Your task to perform on an android device: Open network settings Image 0: 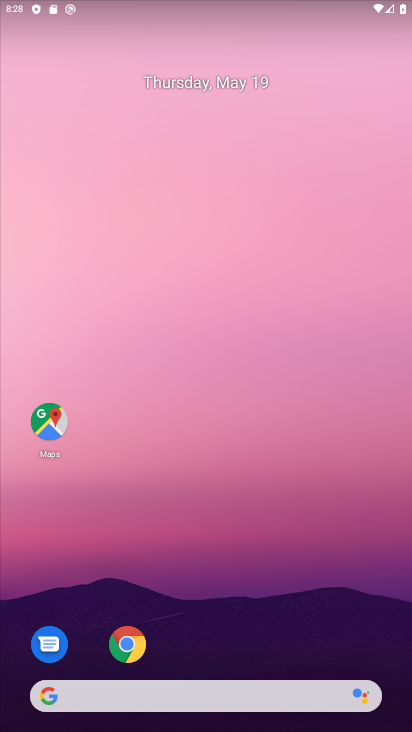
Step 0: drag from (279, 642) to (230, 60)
Your task to perform on an android device: Open network settings Image 1: 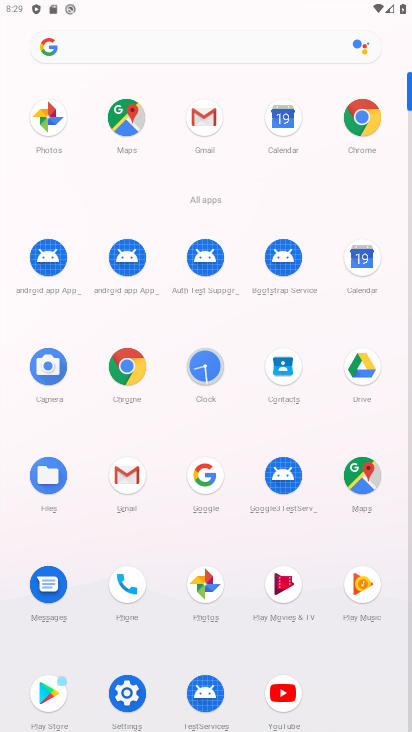
Step 1: click (130, 675)
Your task to perform on an android device: Open network settings Image 2: 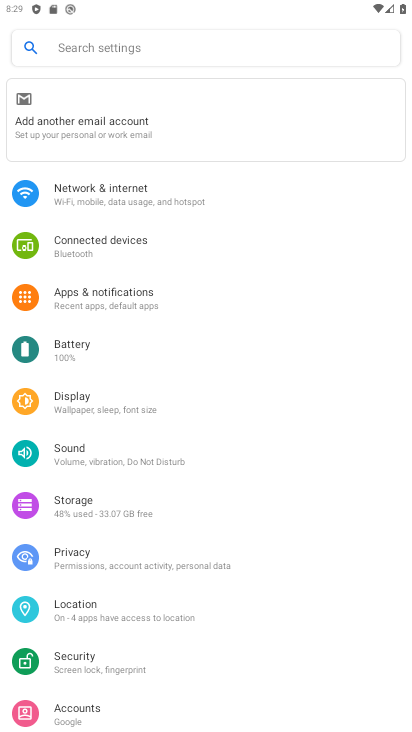
Step 2: click (205, 198)
Your task to perform on an android device: Open network settings Image 3: 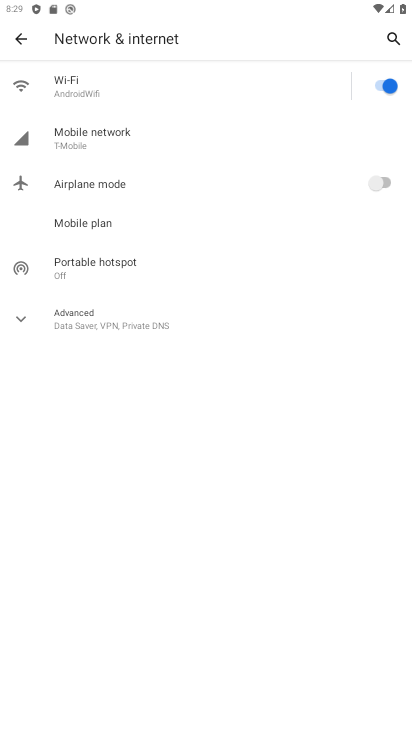
Step 3: task complete